Your task to perform on an android device: Open display settings Image 0: 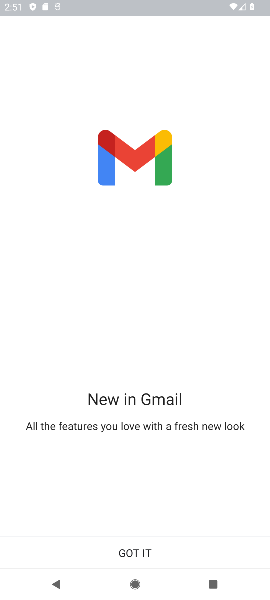
Step 0: press home button
Your task to perform on an android device: Open display settings Image 1: 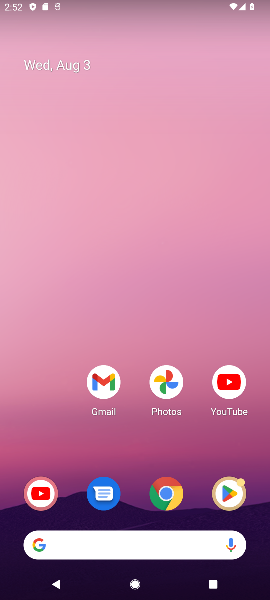
Step 1: drag from (108, 463) to (194, 11)
Your task to perform on an android device: Open display settings Image 2: 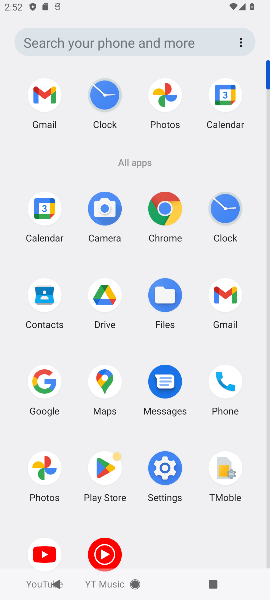
Step 2: click (150, 468)
Your task to perform on an android device: Open display settings Image 3: 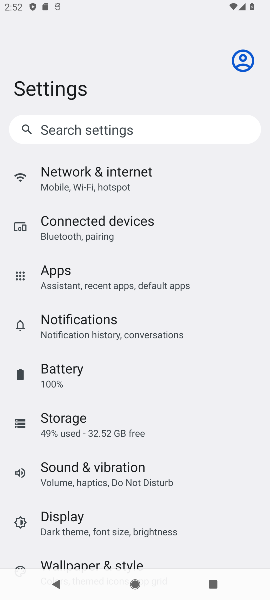
Step 3: drag from (80, 491) to (153, 241)
Your task to perform on an android device: Open display settings Image 4: 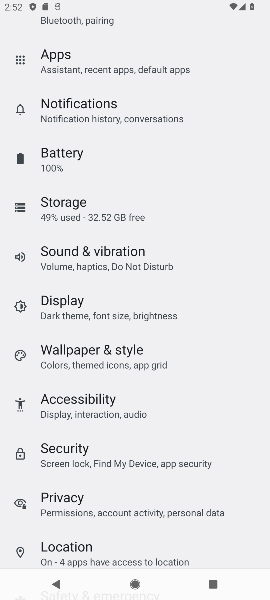
Step 4: click (93, 305)
Your task to perform on an android device: Open display settings Image 5: 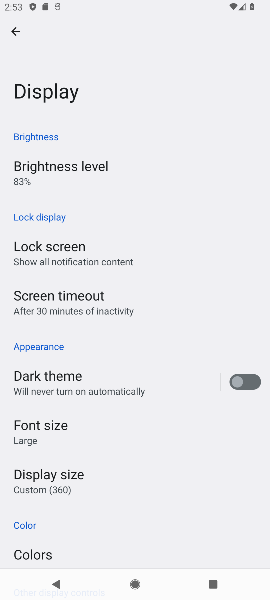
Step 5: task complete